Your task to perform on an android device: Open settings on Google Maps Image 0: 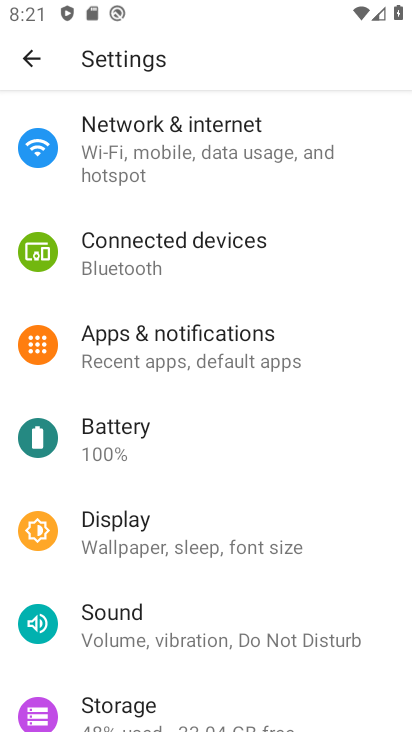
Step 0: press back button
Your task to perform on an android device: Open settings on Google Maps Image 1: 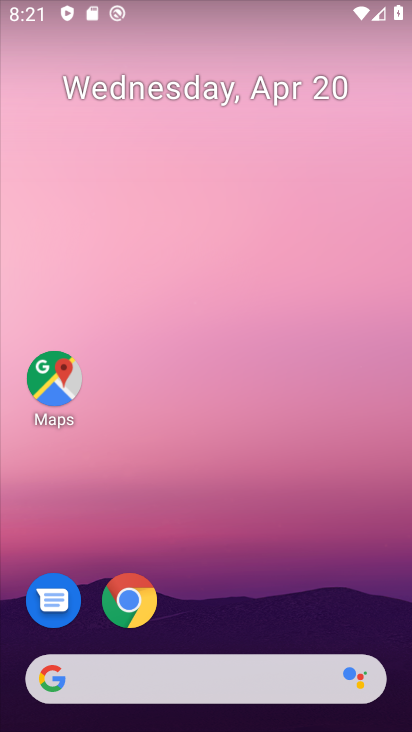
Step 1: drag from (174, 631) to (301, 108)
Your task to perform on an android device: Open settings on Google Maps Image 2: 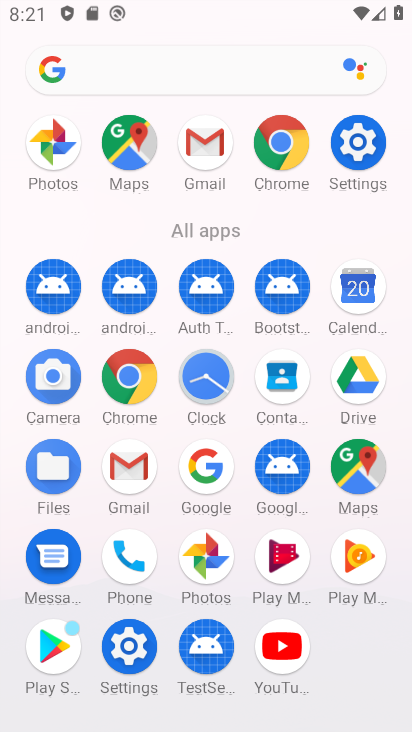
Step 2: click (362, 467)
Your task to perform on an android device: Open settings on Google Maps Image 3: 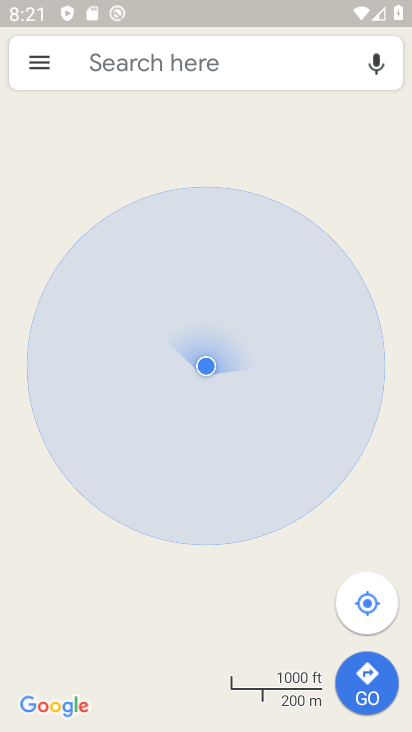
Step 3: click (38, 61)
Your task to perform on an android device: Open settings on Google Maps Image 4: 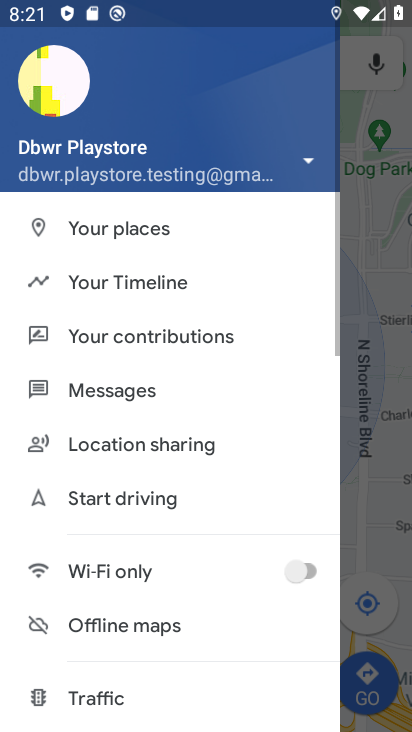
Step 4: drag from (155, 658) to (245, 238)
Your task to perform on an android device: Open settings on Google Maps Image 5: 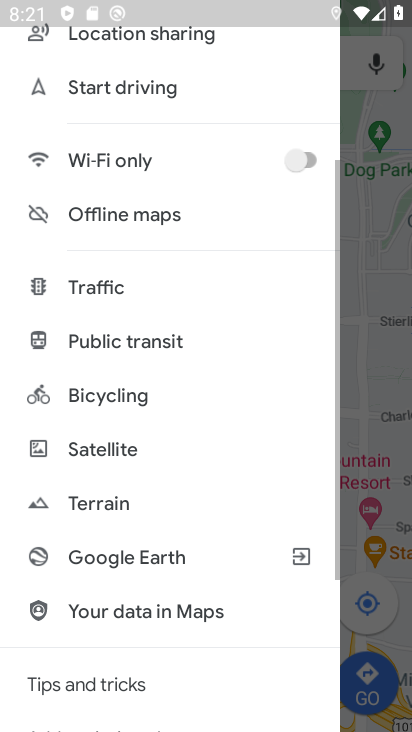
Step 5: drag from (156, 586) to (226, 315)
Your task to perform on an android device: Open settings on Google Maps Image 6: 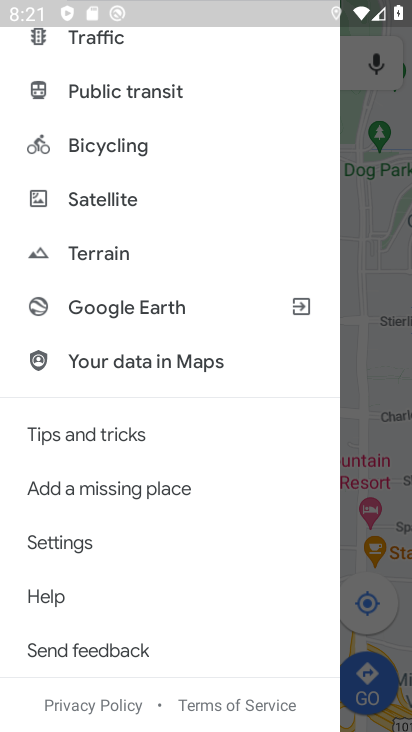
Step 6: click (81, 552)
Your task to perform on an android device: Open settings on Google Maps Image 7: 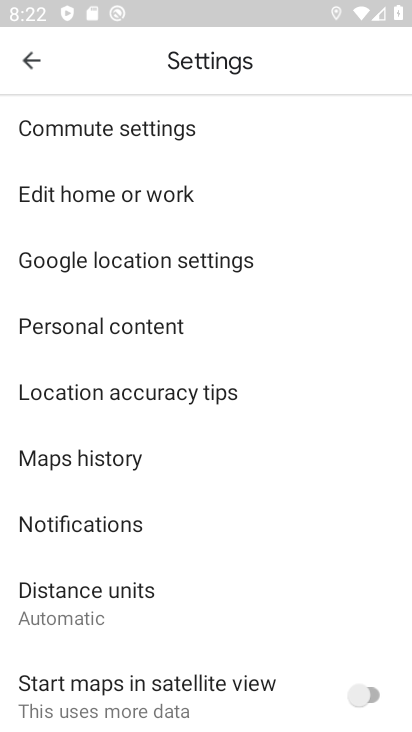
Step 7: task complete